Your task to perform on an android device: set an alarm Image 0: 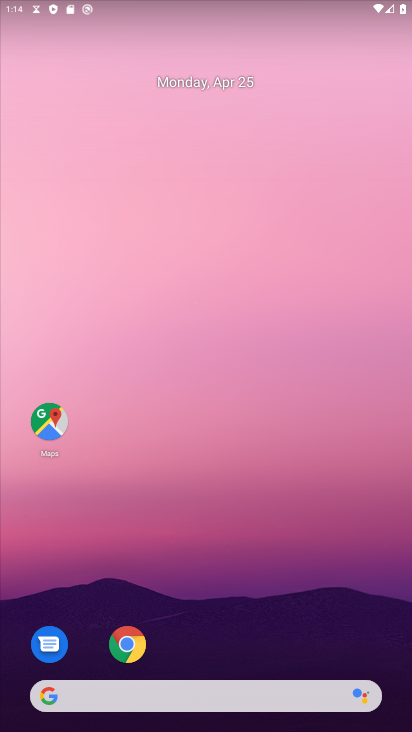
Step 0: drag from (377, 646) to (383, 56)
Your task to perform on an android device: set an alarm Image 1: 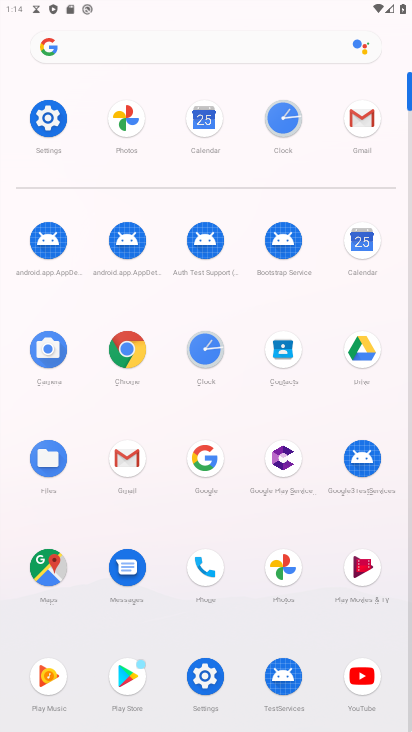
Step 1: click (272, 118)
Your task to perform on an android device: set an alarm Image 2: 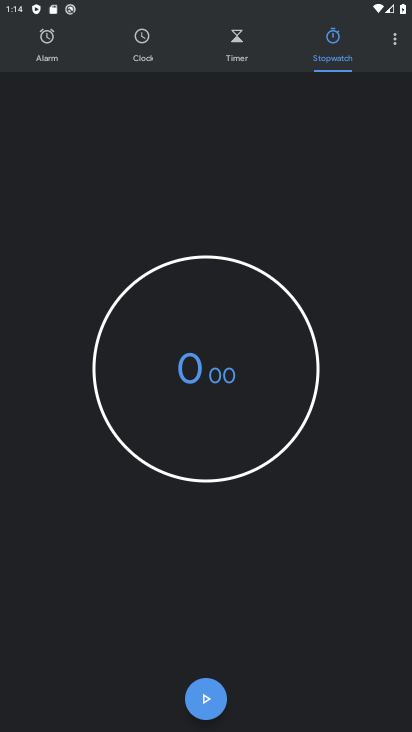
Step 2: click (46, 51)
Your task to perform on an android device: set an alarm Image 3: 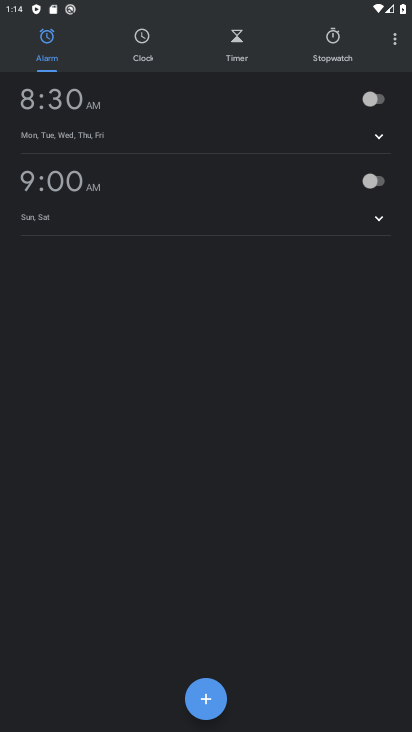
Step 3: click (207, 694)
Your task to perform on an android device: set an alarm Image 4: 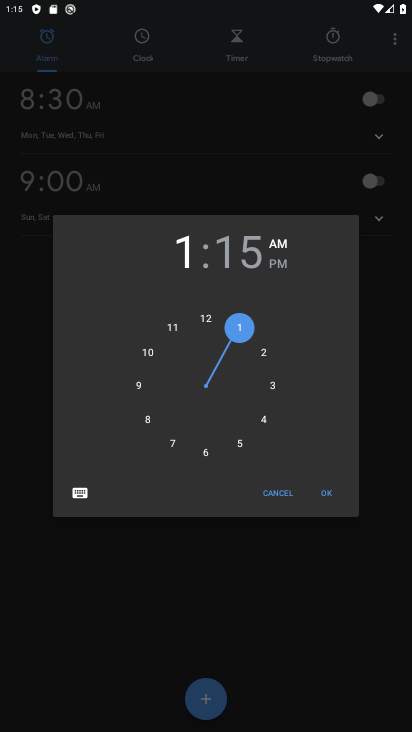
Step 4: click (243, 445)
Your task to perform on an android device: set an alarm Image 5: 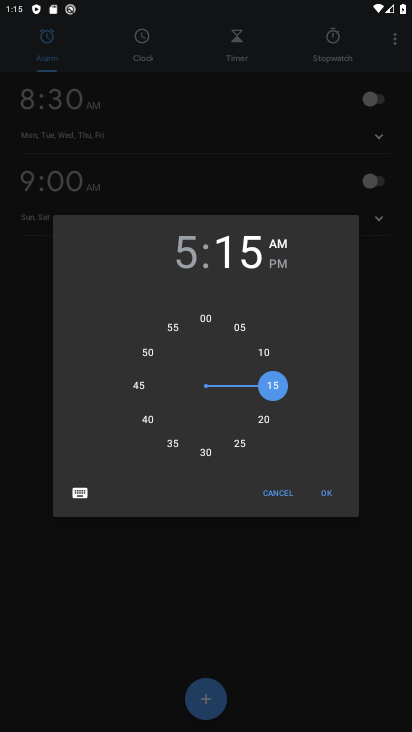
Step 5: click (199, 318)
Your task to perform on an android device: set an alarm Image 6: 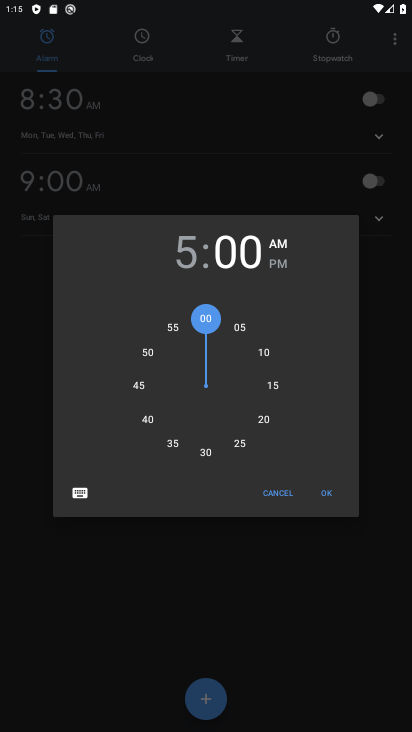
Step 6: click (321, 492)
Your task to perform on an android device: set an alarm Image 7: 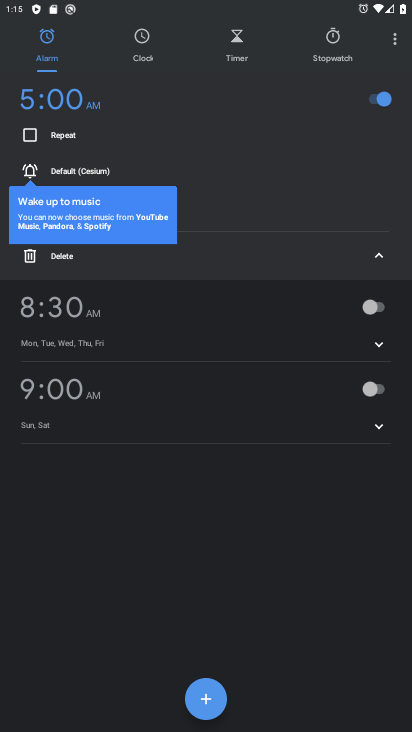
Step 7: task complete